Your task to perform on an android device: toggle translation in the chrome app Image 0: 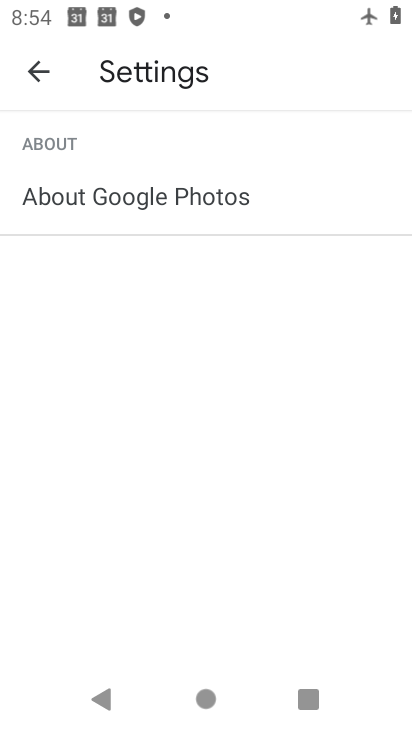
Step 0: press home button
Your task to perform on an android device: toggle translation in the chrome app Image 1: 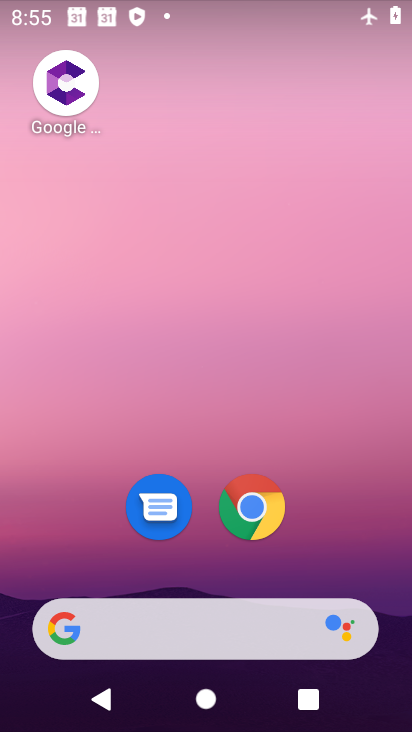
Step 1: click (269, 511)
Your task to perform on an android device: toggle translation in the chrome app Image 2: 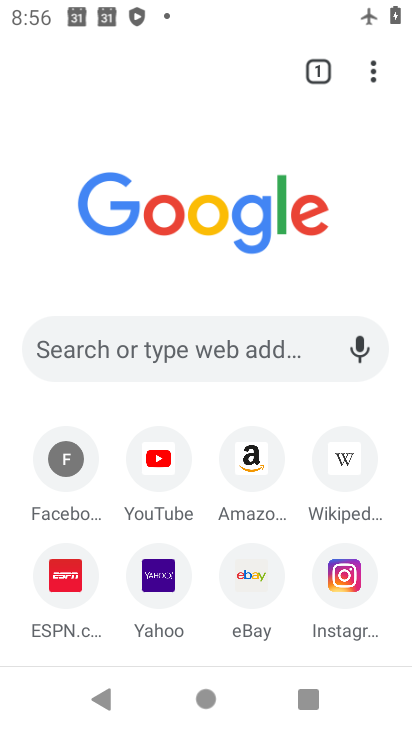
Step 2: click (376, 70)
Your task to perform on an android device: toggle translation in the chrome app Image 3: 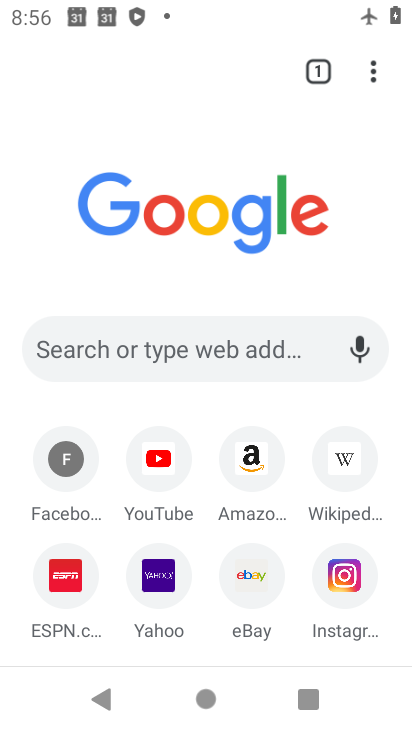
Step 3: click (374, 75)
Your task to perform on an android device: toggle translation in the chrome app Image 4: 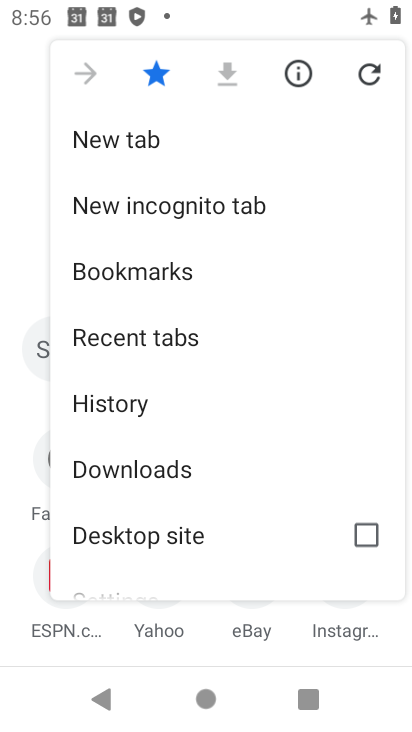
Step 4: drag from (263, 455) to (266, 188)
Your task to perform on an android device: toggle translation in the chrome app Image 5: 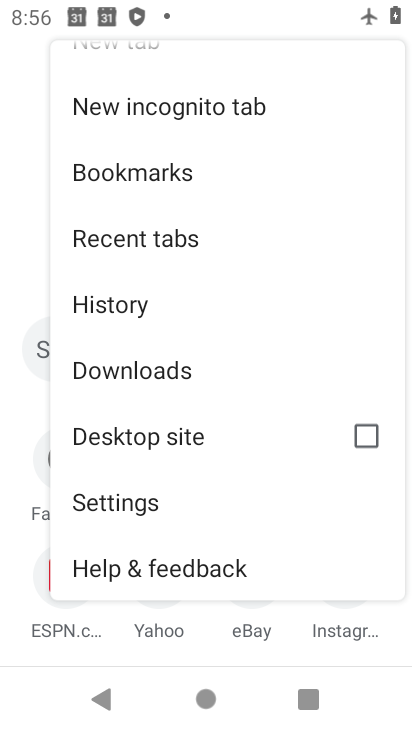
Step 5: drag from (158, 528) to (156, 451)
Your task to perform on an android device: toggle translation in the chrome app Image 6: 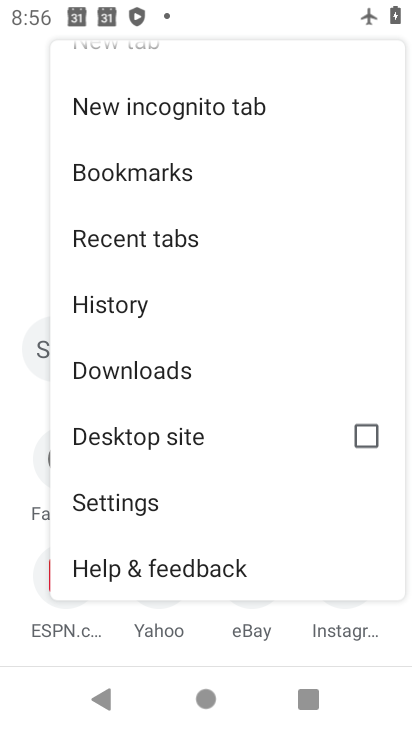
Step 6: click (164, 503)
Your task to perform on an android device: toggle translation in the chrome app Image 7: 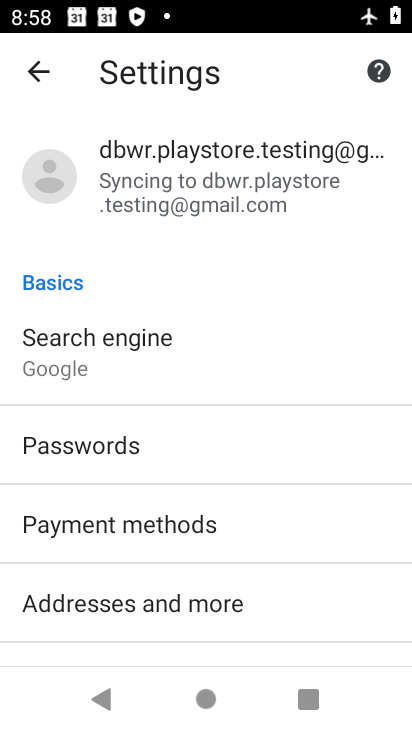
Step 7: task complete